Your task to perform on an android device: Open calendar and show me the second week of next month Image 0: 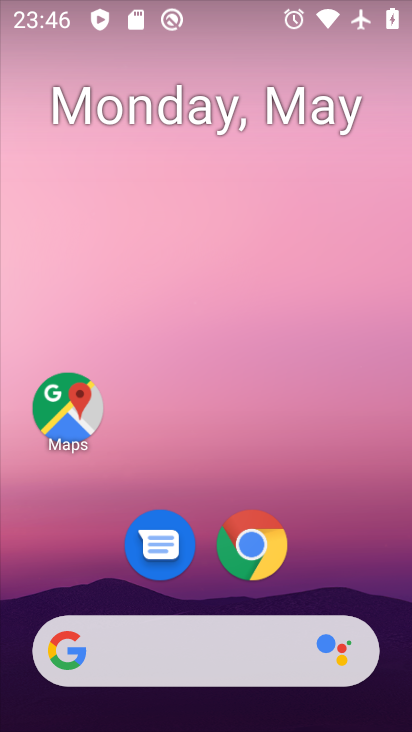
Step 0: drag from (316, 597) to (339, 32)
Your task to perform on an android device: Open calendar and show me the second week of next month Image 1: 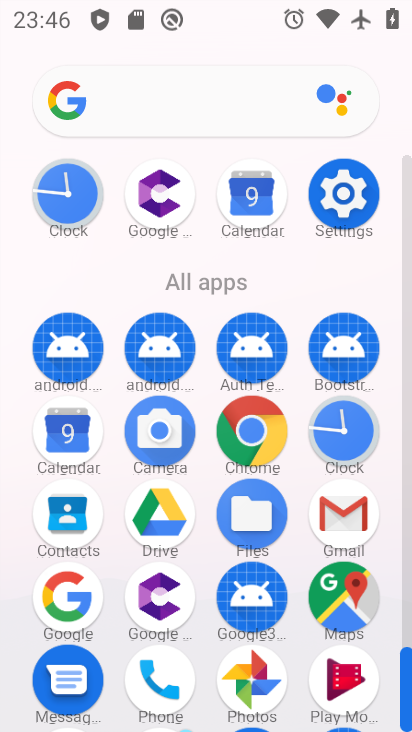
Step 1: click (67, 438)
Your task to perform on an android device: Open calendar and show me the second week of next month Image 2: 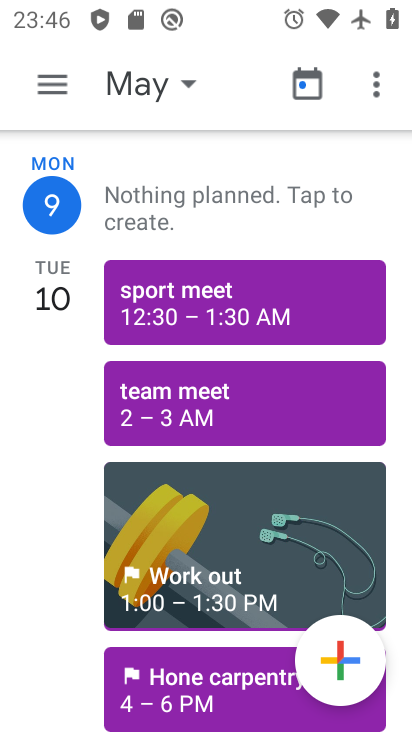
Step 2: click (166, 84)
Your task to perform on an android device: Open calendar and show me the second week of next month Image 3: 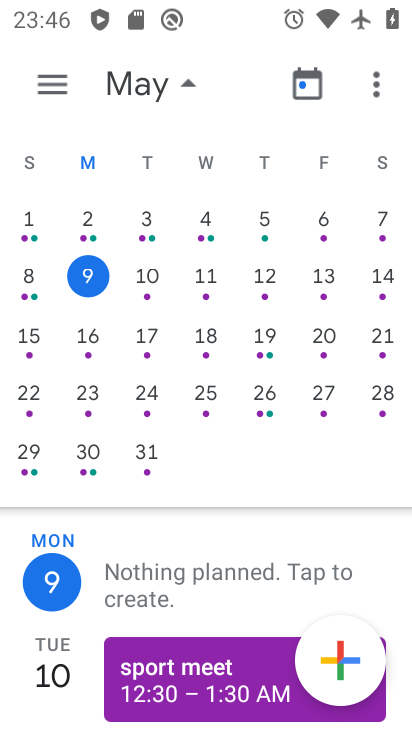
Step 3: drag from (399, 380) to (16, 329)
Your task to perform on an android device: Open calendar and show me the second week of next month Image 4: 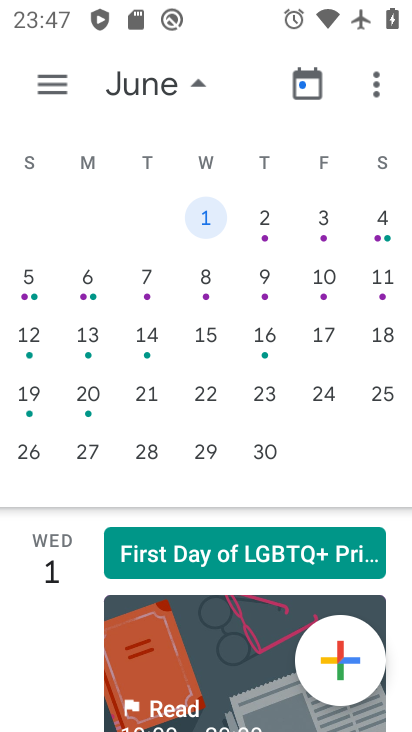
Step 4: click (38, 290)
Your task to perform on an android device: Open calendar and show me the second week of next month Image 5: 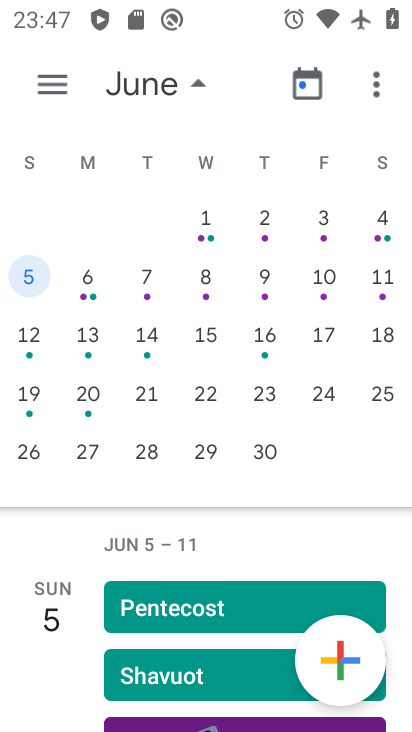
Step 5: task complete